Your task to perform on an android device: find which apps use the phone's location Image 0: 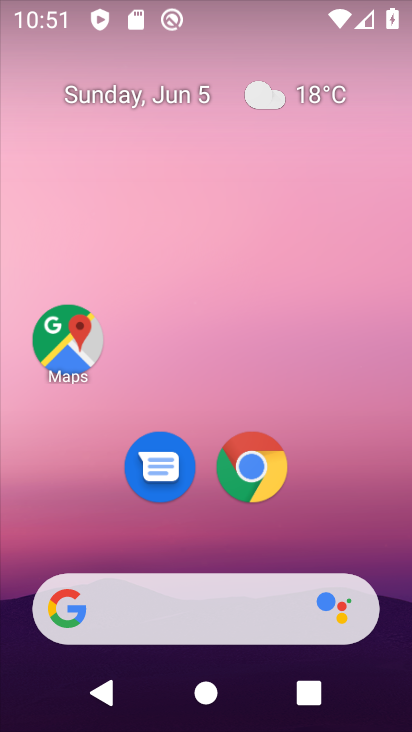
Step 0: drag from (213, 542) to (171, 71)
Your task to perform on an android device: find which apps use the phone's location Image 1: 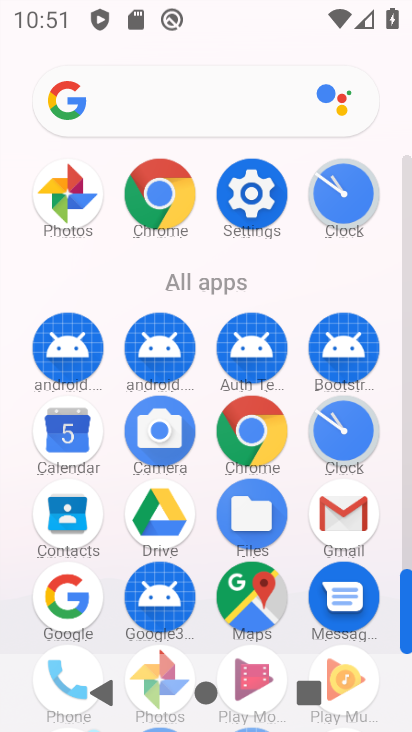
Step 1: click (259, 206)
Your task to perform on an android device: find which apps use the phone's location Image 2: 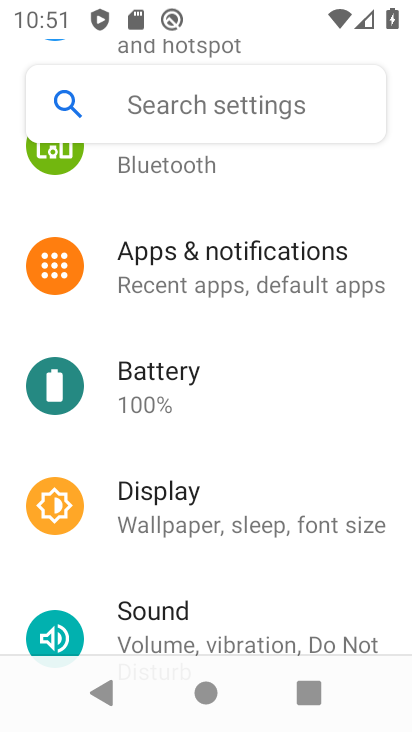
Step 2: drag from (240, 419) to (174, 34)
Your task to perform on an android device: find which apps use the phone's location Image 3: 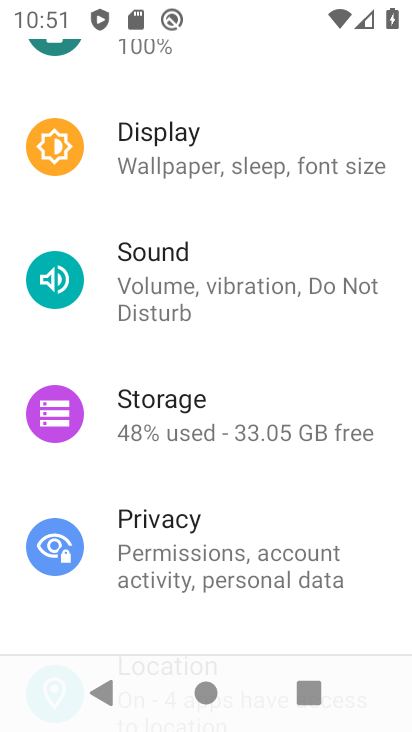
Step 3: drag from (162, 479) to (163, 254)
Your task to perform on an android device: find which apps use the phone's location Image 4: 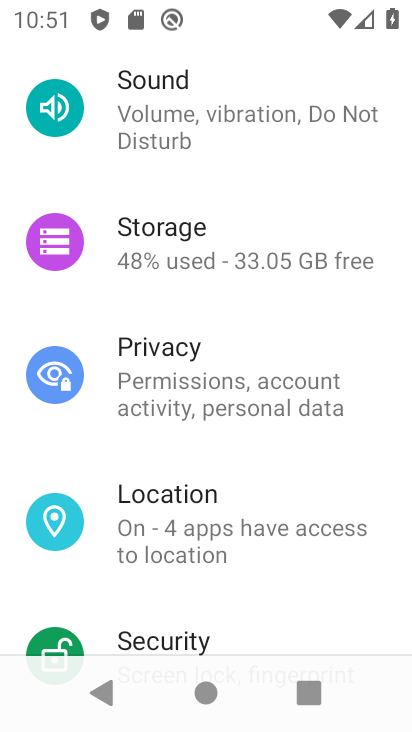
Step 4: click (120, 503)
Your task to perform on an android device: find which apps use the phone's location Image 5: 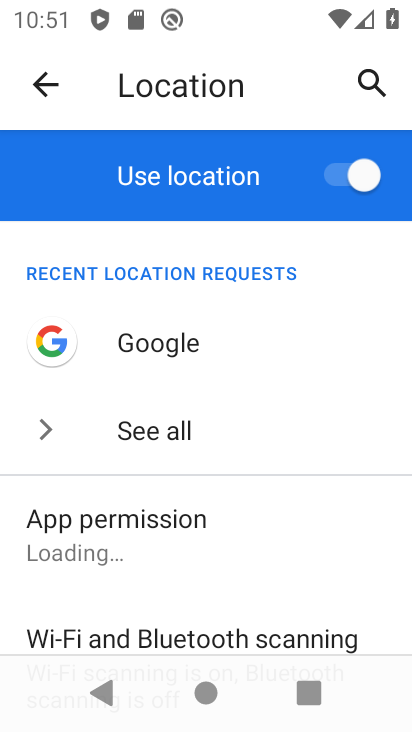
Step 5: drag from (120, 503) to (118, 316)
Your task to perform on an android device: find which apps use the phone's location Image 6: 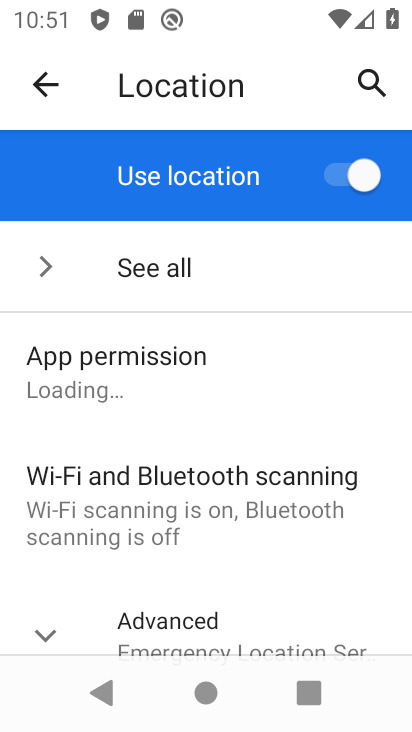
Step 6: click (112, 357)
Your task to perform on an android device: find which apps use the phone's location Image 7: 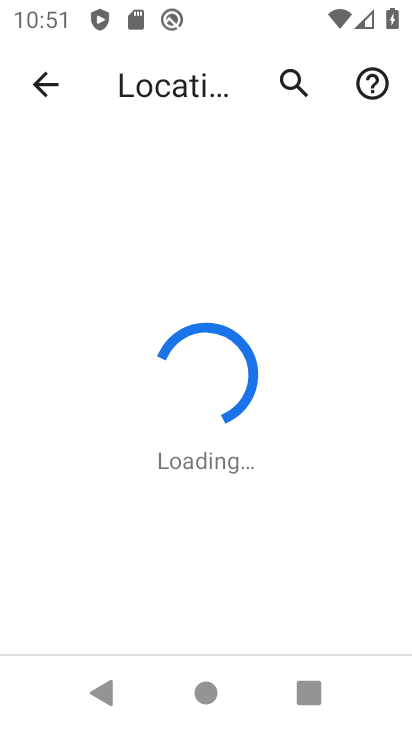
Step 7: task complete